Your task to perform on an android device: all mails in gmail Image 0: 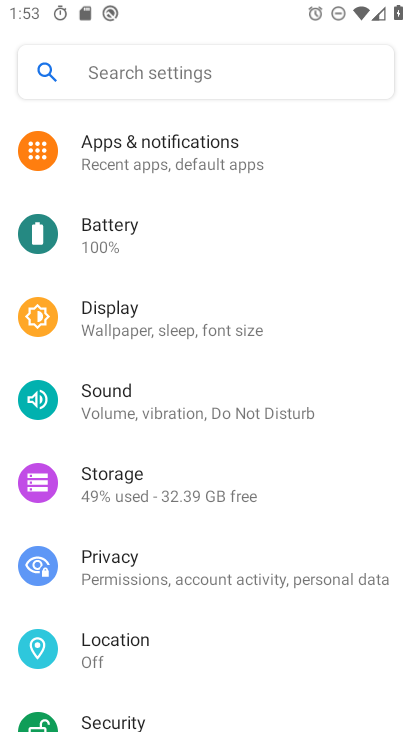
Step 0: press home button
Your task to perform on an android device: all mails in gmail Image 1: 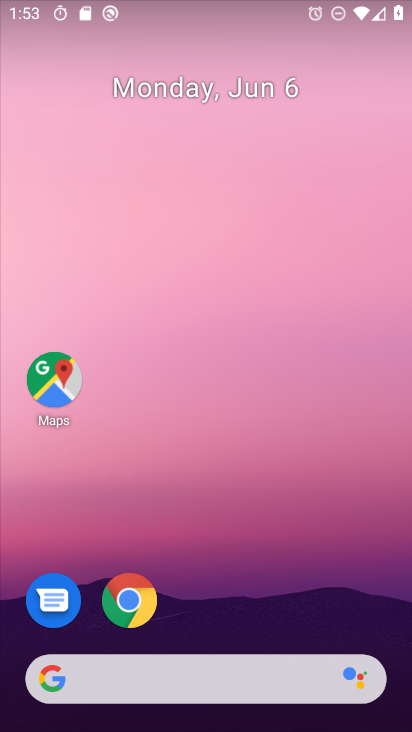
Step 1: drag from (219, 617) to (222, 141)
Your task to perform on an android device: all mails in gmail Image 2: 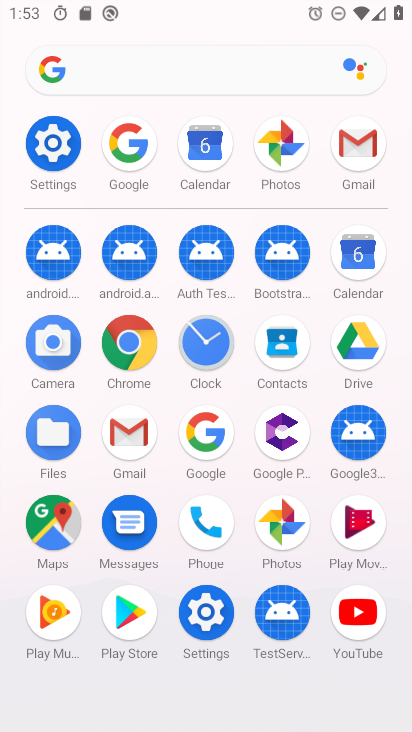
Step 2: click (364, 153)
Your task to perform on an android device: all mails in gmail Image 3: 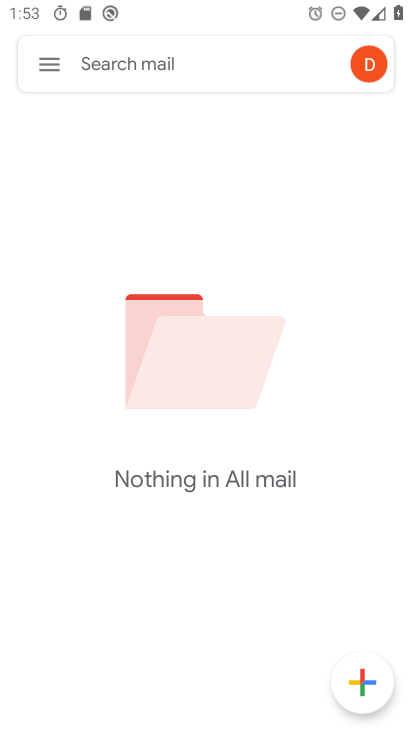
Step 3: click (55, 73)
Your task to perform on an android device: all mails in gmail Image 4: 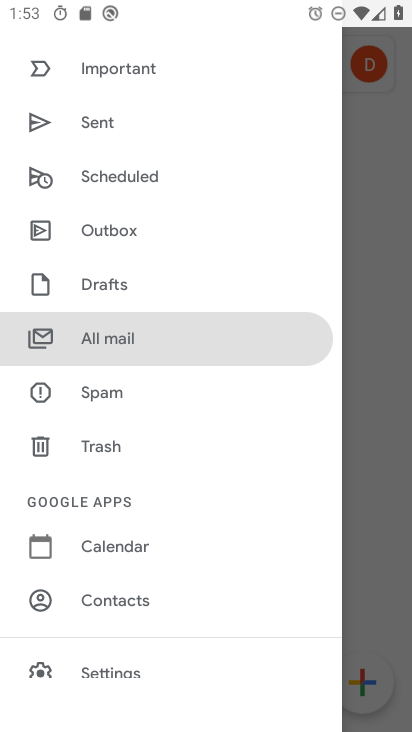
Step 4: click (167, 346)
Your task to perform on an android device: all mails in gmail Image 5: 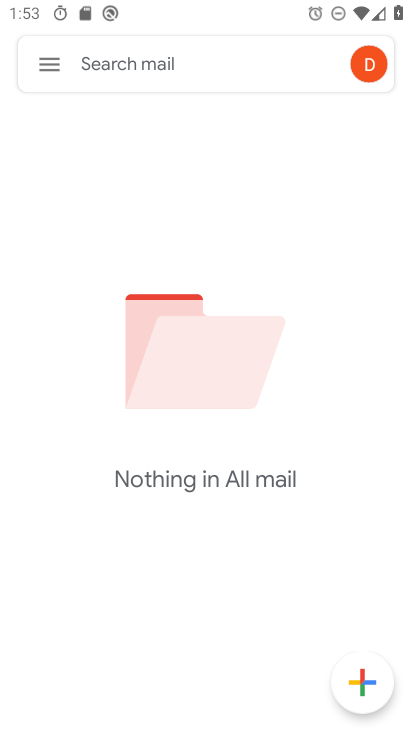
Step 5: task complete